Your task to perform on an android device: What is the recent news? Image 0: 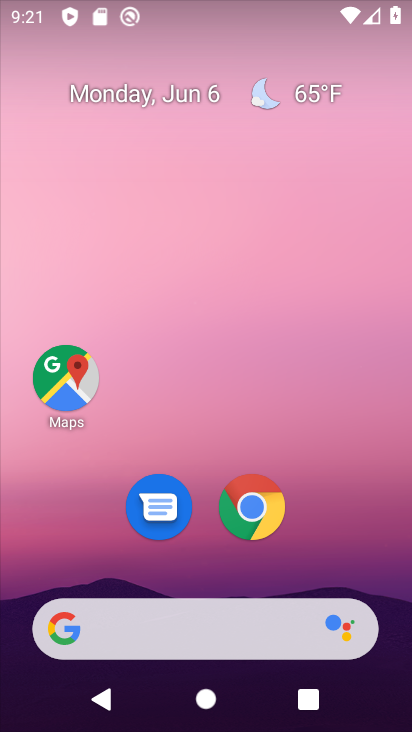
Step 0: click (254, 508)
Your task to perform on an android device: What is the recent news? Image 1: 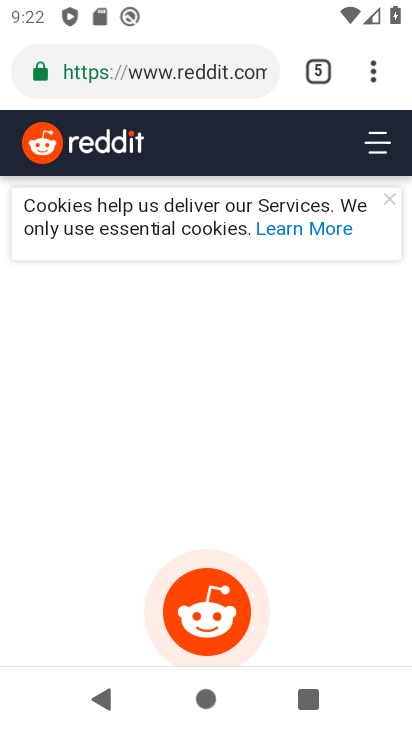
Step 1: click (366, 63)
Your task to perform on an android device: What is the recent news? Image 2: 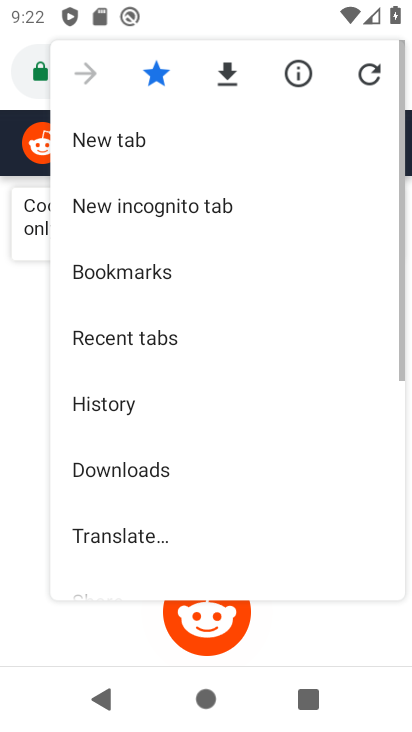
Step 2: click (131, 139)
Your task to perform on an android device: What is the recent news? Image 3: 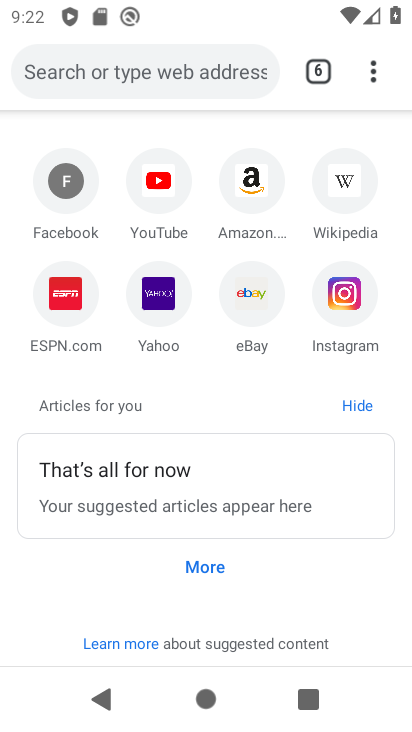
Step 3: click (157, 55)
Your task to perform on an android device: What is the recent news? Image 4: 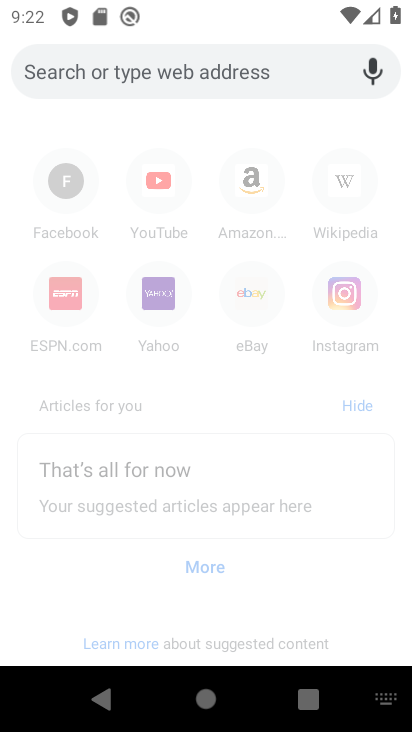
Step 4: type "What is the recent news?"
Your task to perform on an android device: What is the recent news? Image 5: 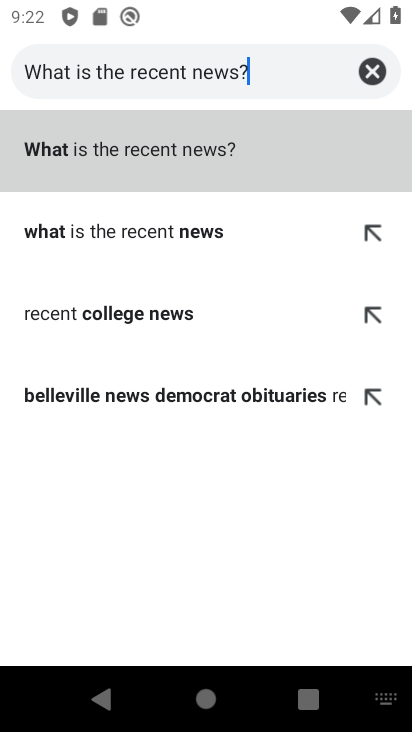
Step 5: click (262, 162)
Your task to perform on an android device: What is the recent news? Image 6: 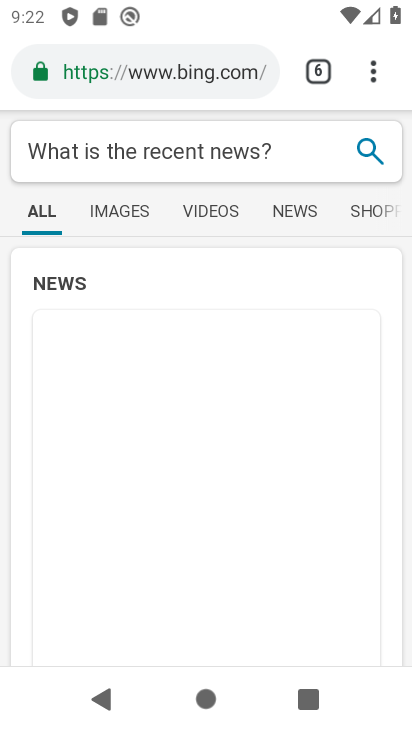
Step 6: task complete